Your task to perform on an android device: Open my contact list Image 0: 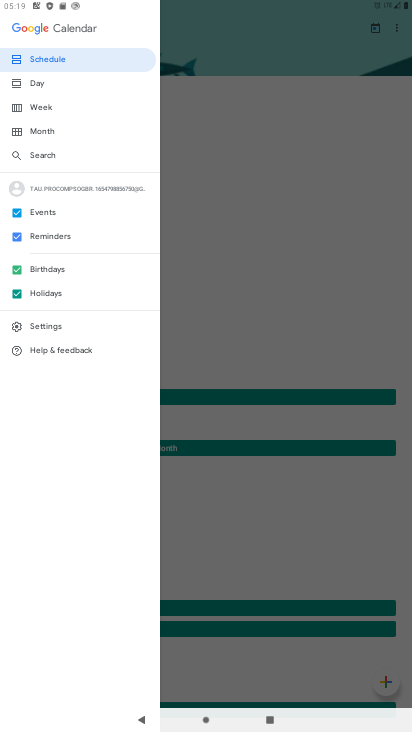
Step 0: press home button
Your task to perform on an android device: Open my contact list Image 1: 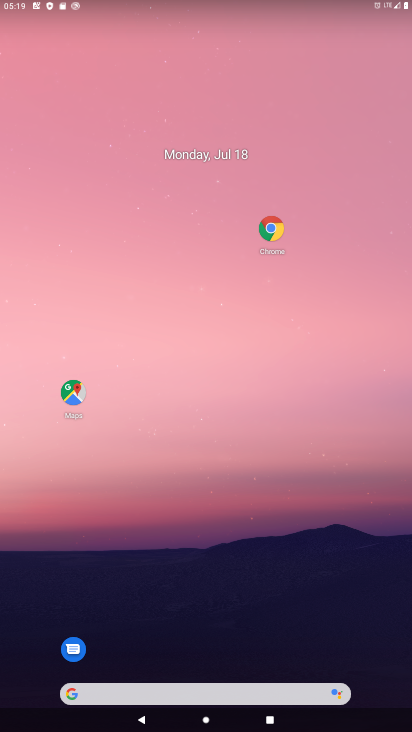
Step 1: drag from (189, 641) to (213, 115)
Your task to perform on an android device: Open my contact list Image 2: 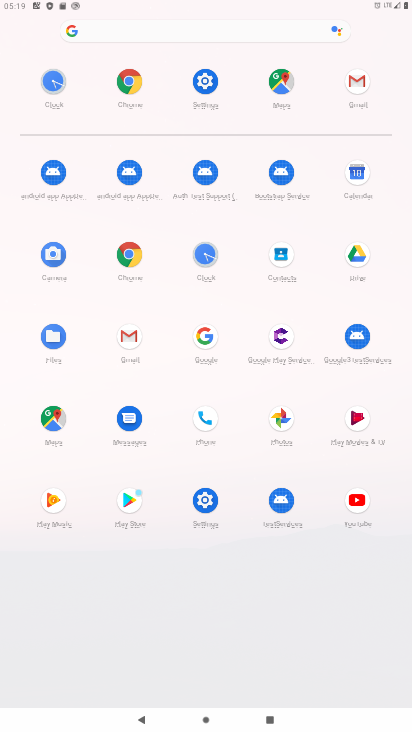
Step 2: click (282, 269)
Your task to perform on an android device: Open my contact list Image 3: 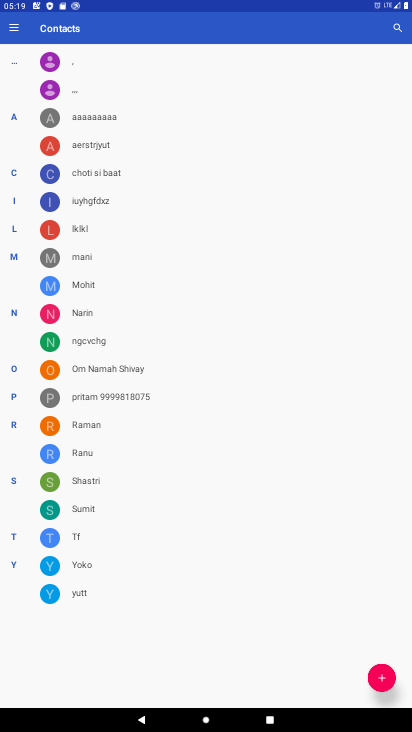
Step 3: task complete